Your task to perform on an android device: Go to Yahoo.com Image 0: 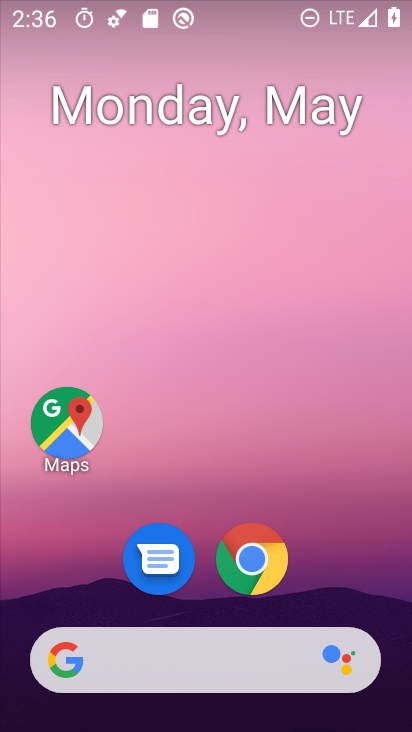
Step 0: click (258, 563)
Your task to perform on an android device: Go to Yahoo.com Image 1: 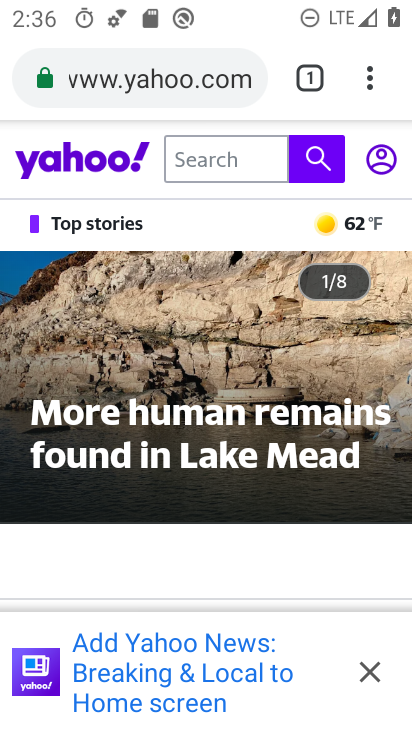
Step 1: task complete